Your task to perform on an android device: turn notification dots on Image 0: 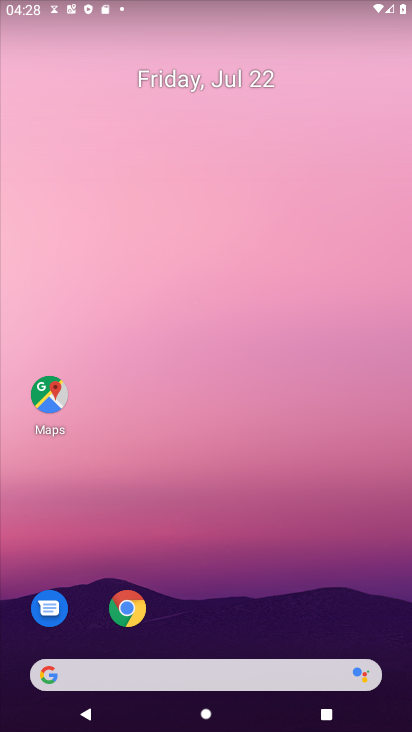
Step 0: drag from (222, 697) to (216, 77)
Your task to perform on an android device: turn notification dots on Image 1: 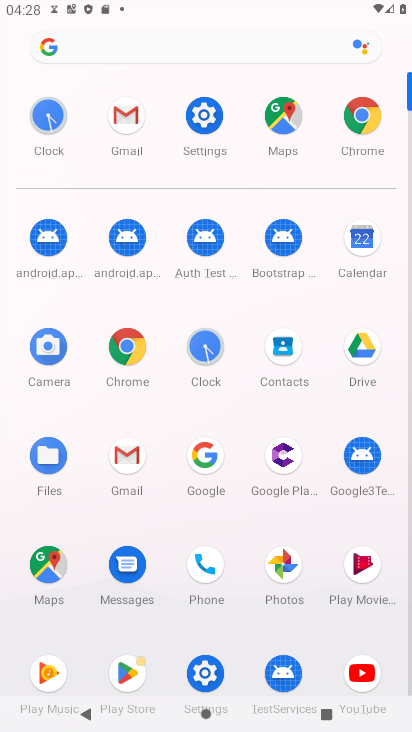
Step 1: click (203, 116)
Your task to perform on an android device: turn notification dots on Image 2: 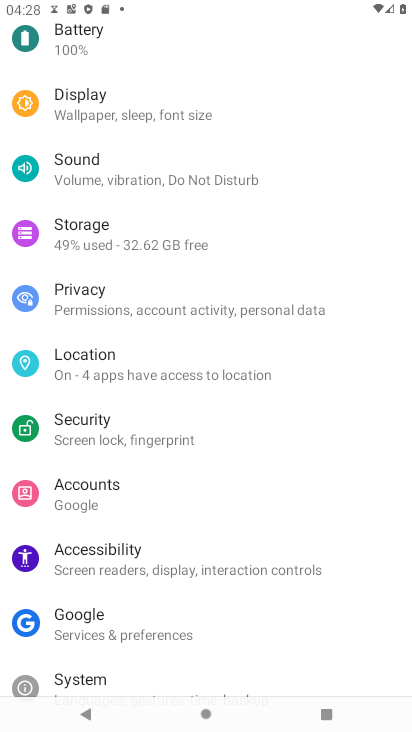
Step 2: drag from (192, 199) to (227, 544)
Your task to perform on an android device: turn notification dots on Image 3: 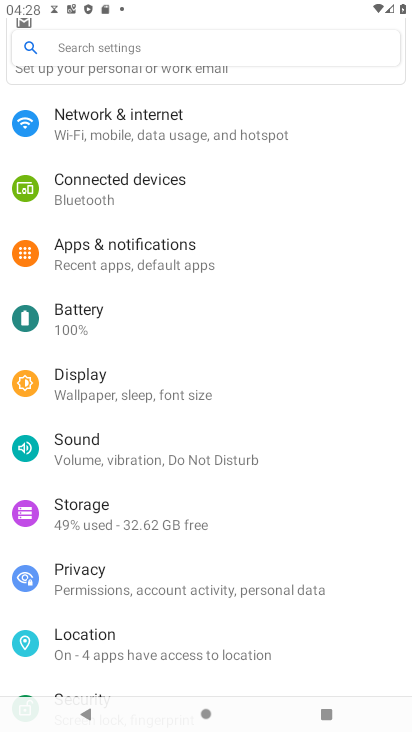
Step 3: click (144, 249)
Your task to perform on an android device: turn notification dots on Image 4: 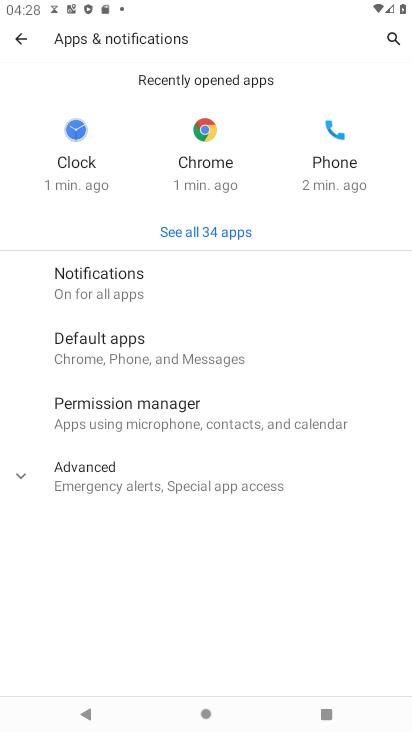
Step 4: click (106, 291)
Your task to perform on an android device: turn notification dots on Image 5: 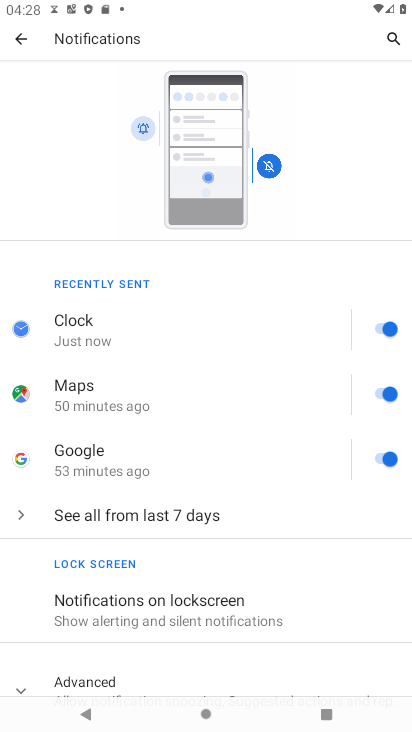
Step 5: drag from (195, 646) to (192, 436)
Your task to perform on an android device: turn notification dots on Image 6: 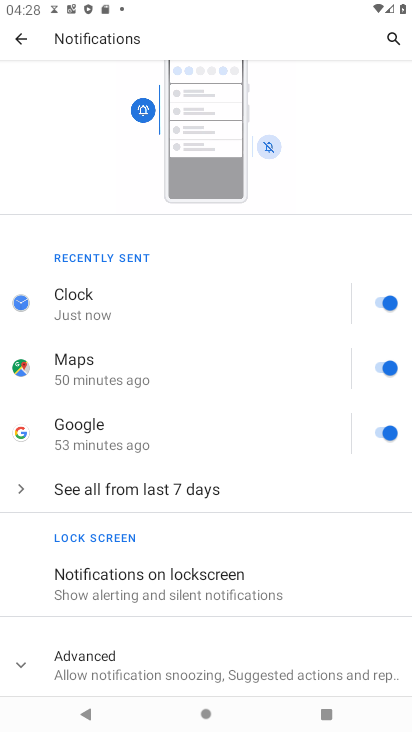
Step 6: click (117, 669)
Your task to perform on an android device: turn notification dots on Image 7: 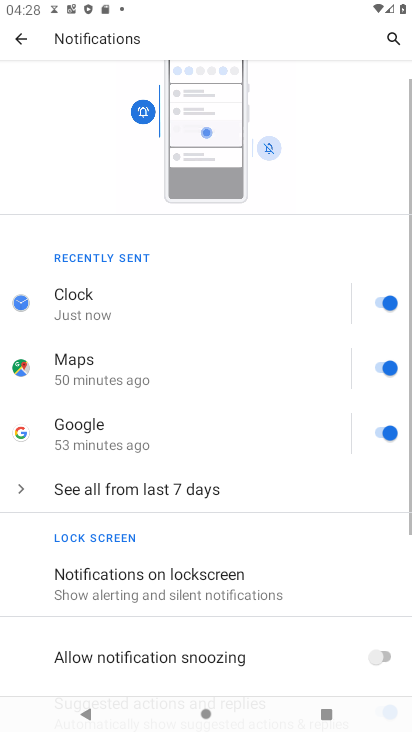
Step 7: task complete